Your task to perform on an android device: Go to Google Image 0: 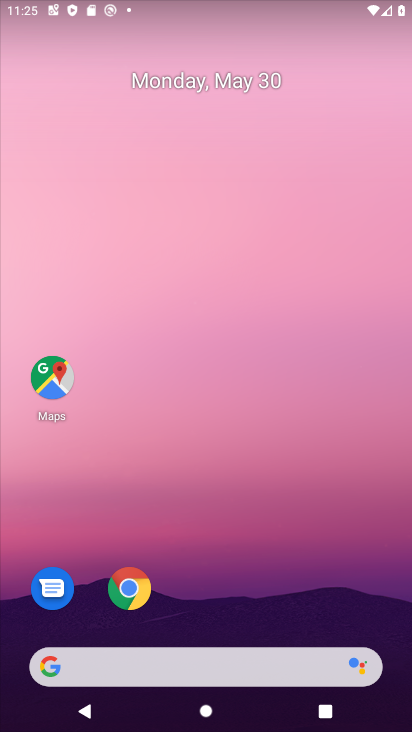
Step 0: drag from (213, 623) to (247, 74)
Your task to perform on an android device: Go to Google Image 1: 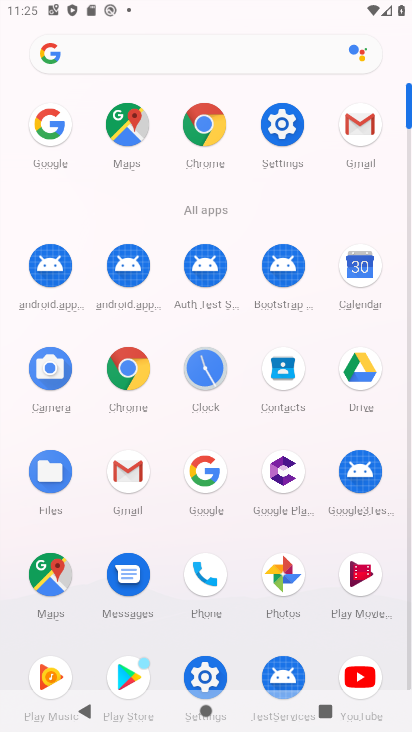
Step 1: click (205, 462)
Your task to perform on an android device: Go to Google Image 2: 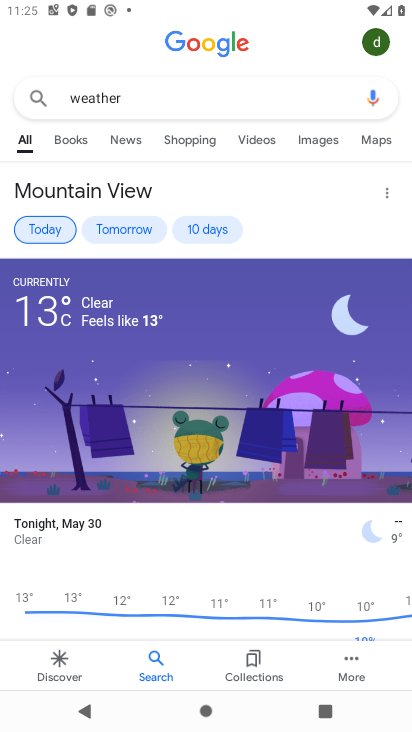
Step 2: task complete